Your task to perform on an android device: Search for Mexican restaurants on Maps Image 0: 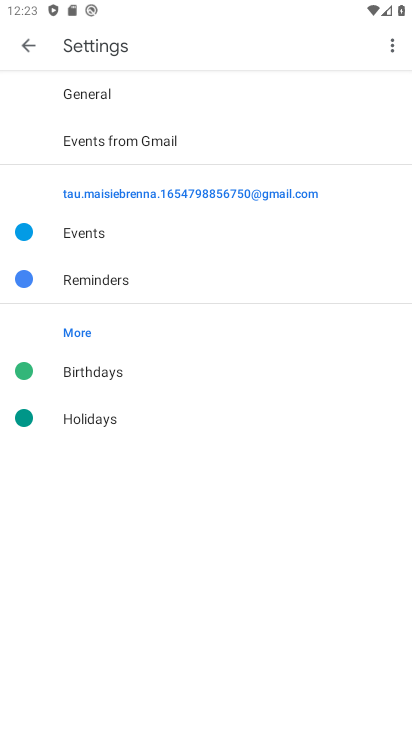
Step 0: press home button
Your task to perform on an android device: Search for Mexican restaurants on Maps Image 1: 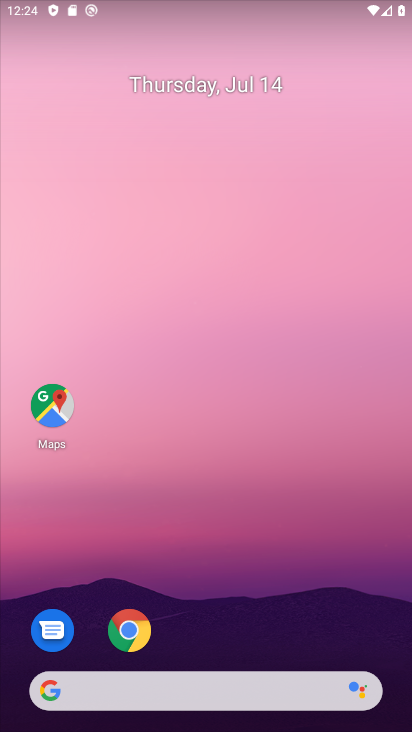
Step 1: click (53, 415)
Your task to perform on an android device: Search for Mexican restaurants on Maps Image 2: 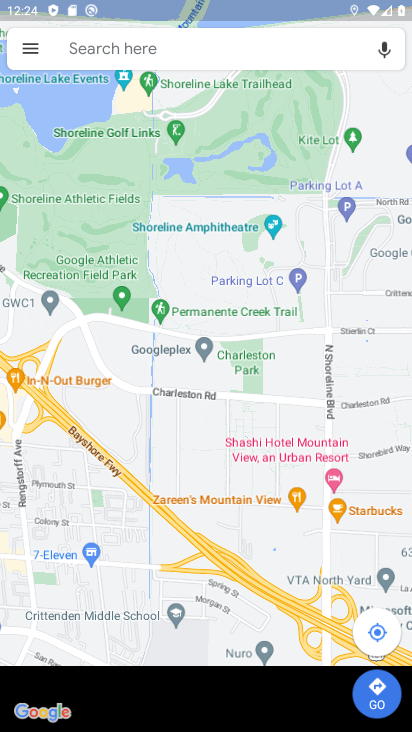
Step 2: click (163, 51)
Your task to perform on an android device: Search for Mexican restaurants on Maps Image 3: 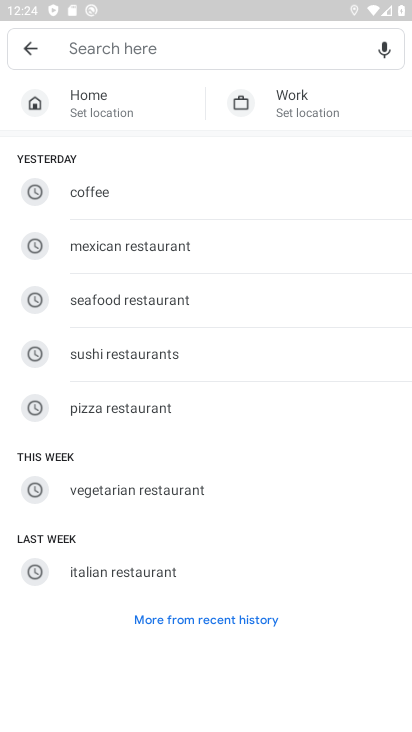
Step 3: click (102, 237)
Your task to perform on an android device: Search for Mexican restaurants on Maps Image 4: 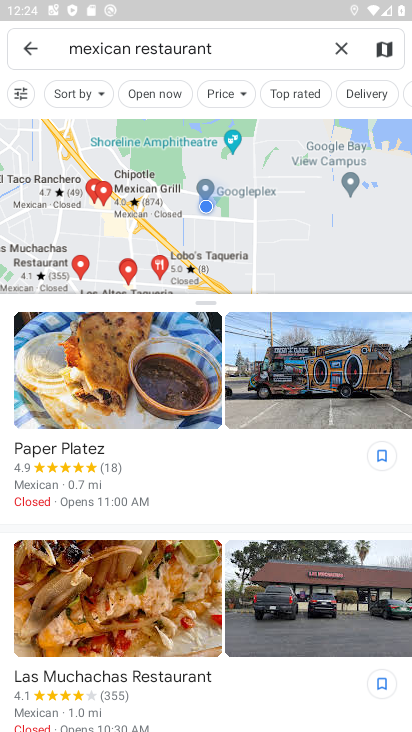
Step 4: task complete